Your task to perform on an android device: Open the calendar app, open the side menu, and click the "Day" option Image 0: 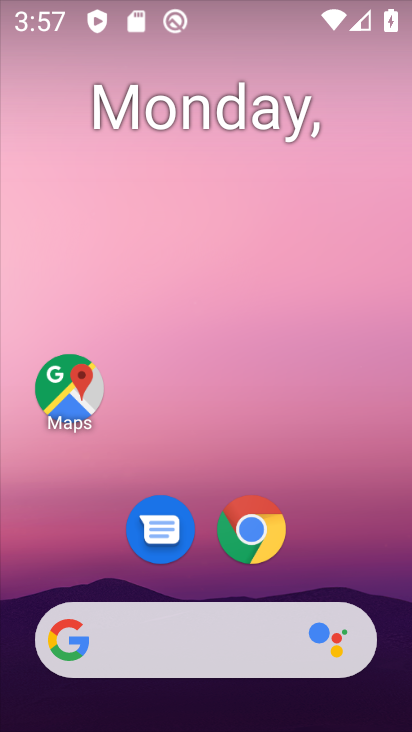
Step 0: drag from (204, 527) to (308, 0)
Your task to perform on an android device: Open the calendar app, open the side menu, and click the "Day" option Image 1: 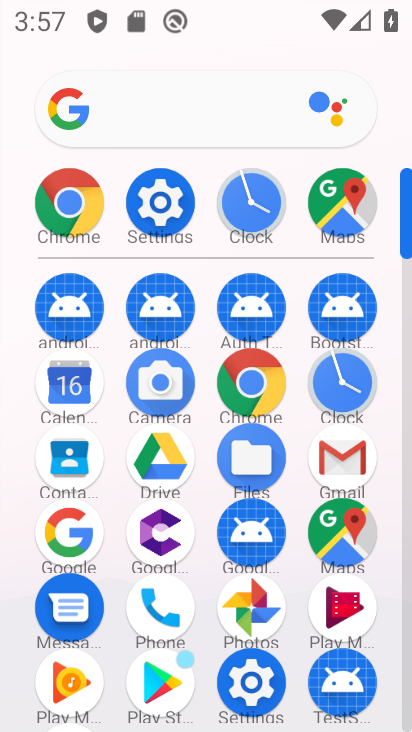
Step 1: click (63, 401)
Your task to perform on an android device: Open the calendar app, open the side menu, and click the "Day" option Image 2: 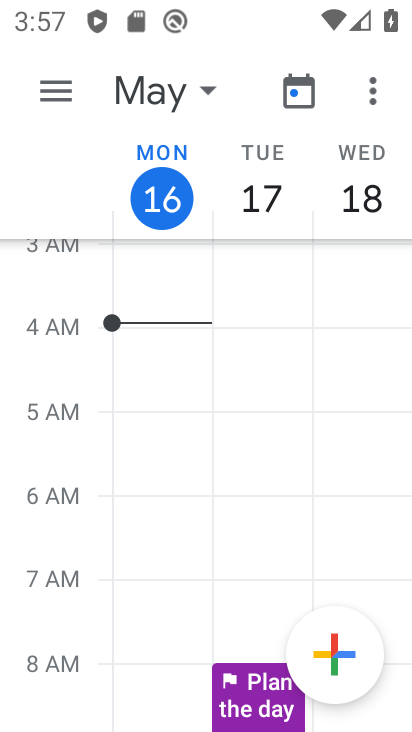
Step 2: click (45, 98)
Your task to perform on an android device: Open the calendar app, open the side menu, and click the "Day" option Image 3: 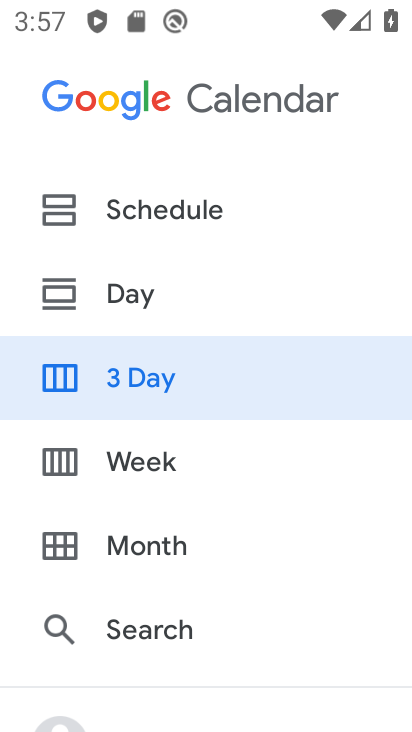
Step 3: click (113, 289)
Your task to perform on an android device: Open the calendar app, open the side menu, and click the "Day" option Image 4: 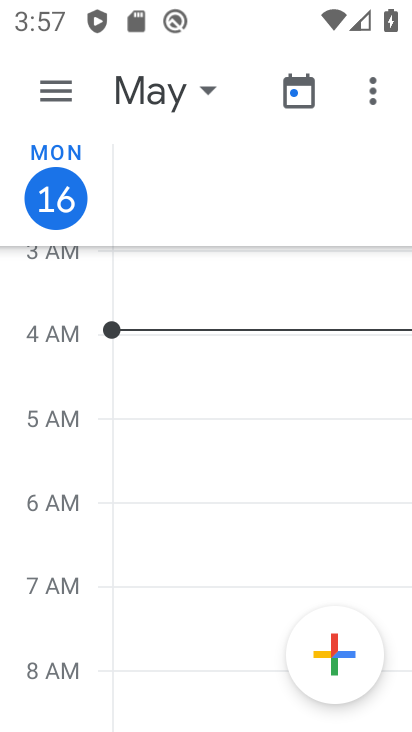
Step 4: task complete